Your task to perform on an android device: Open battery settings Image 0: 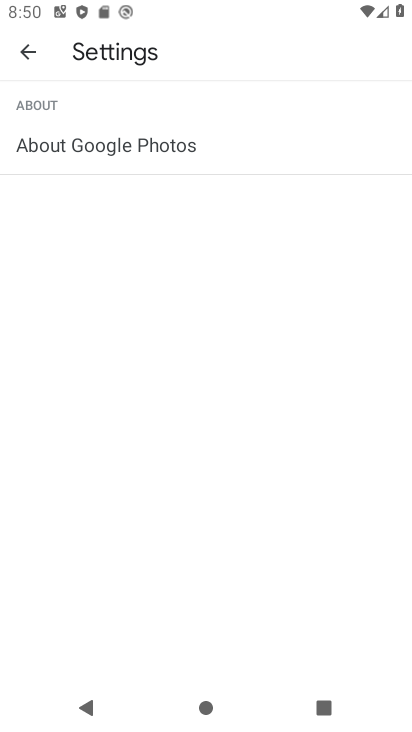
Step 0: press home button
Your task to perform on an android device: Open battery settings Image 1: 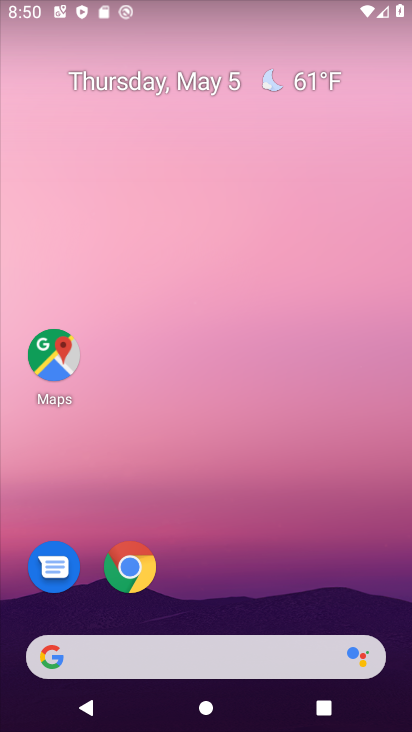
Step 1: drag from (308, 525) to (296, 96)
Your task to perform on an android device: Open battery settings Image 2: 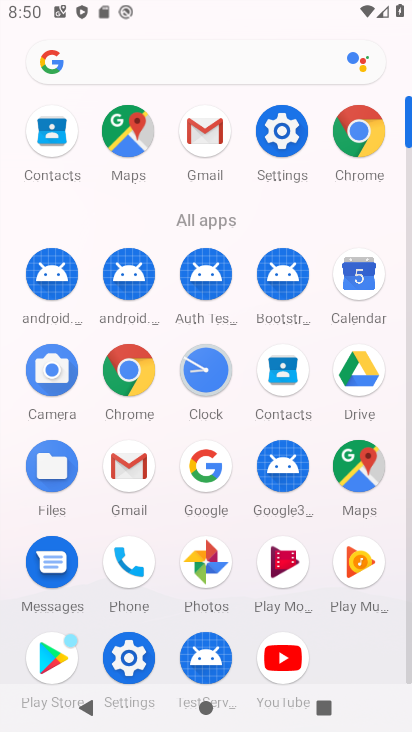
Step 2: click (282, 144)
Your task to perform on an android device: Open battery settings Image 3: 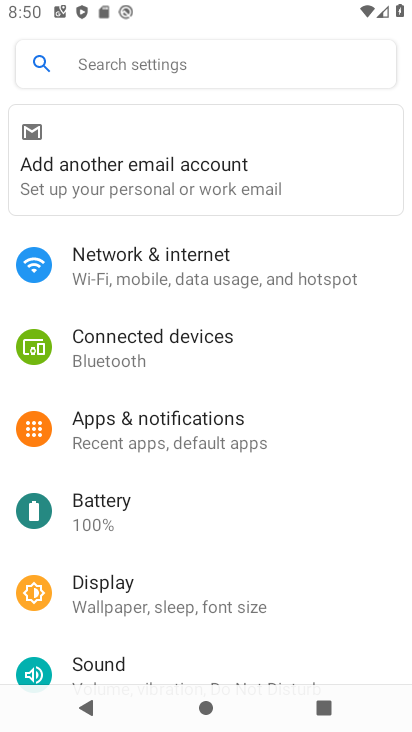
Step 3: click (103, 510)
Your task to perform on an android device: Open battery settings Image 4: 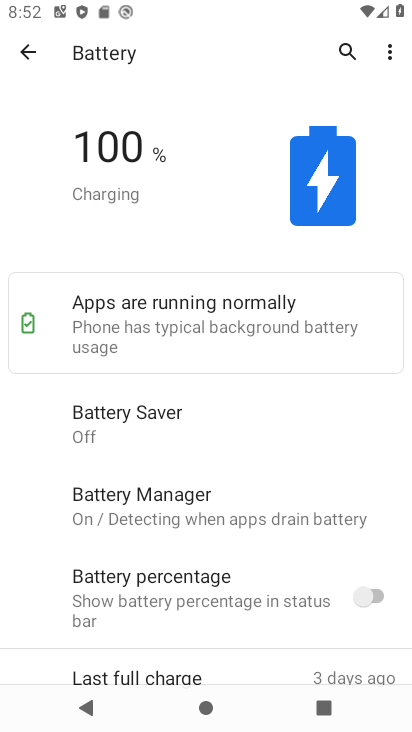
Step 4: task complete